Your task to perform on an android device: open app "Spotify" Image 0: 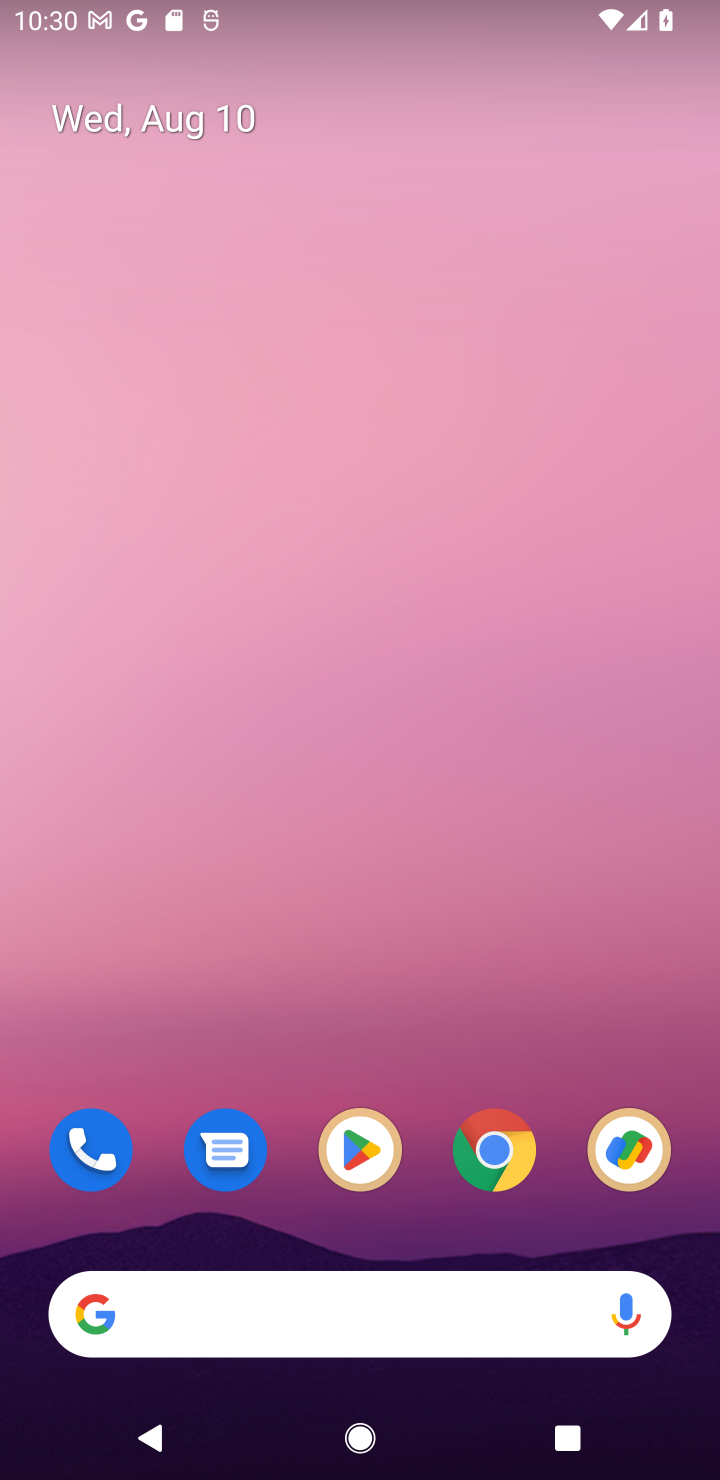
Step 0: click (365, 1137)
Your task to perform on an android device: open app "Spotify" Image 1: 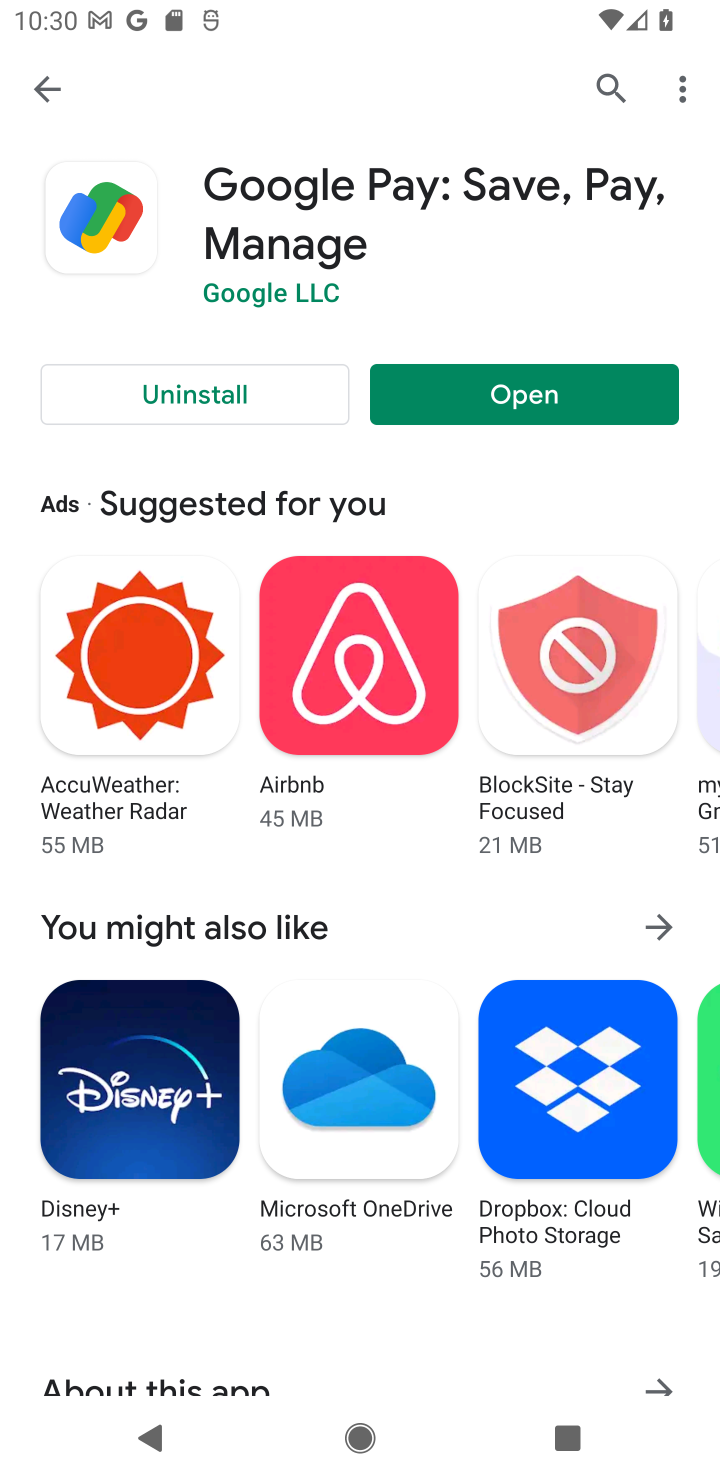
Step 1: click (623, 85)
Your task to perform on an android device: open app "Spotify" Image 2: 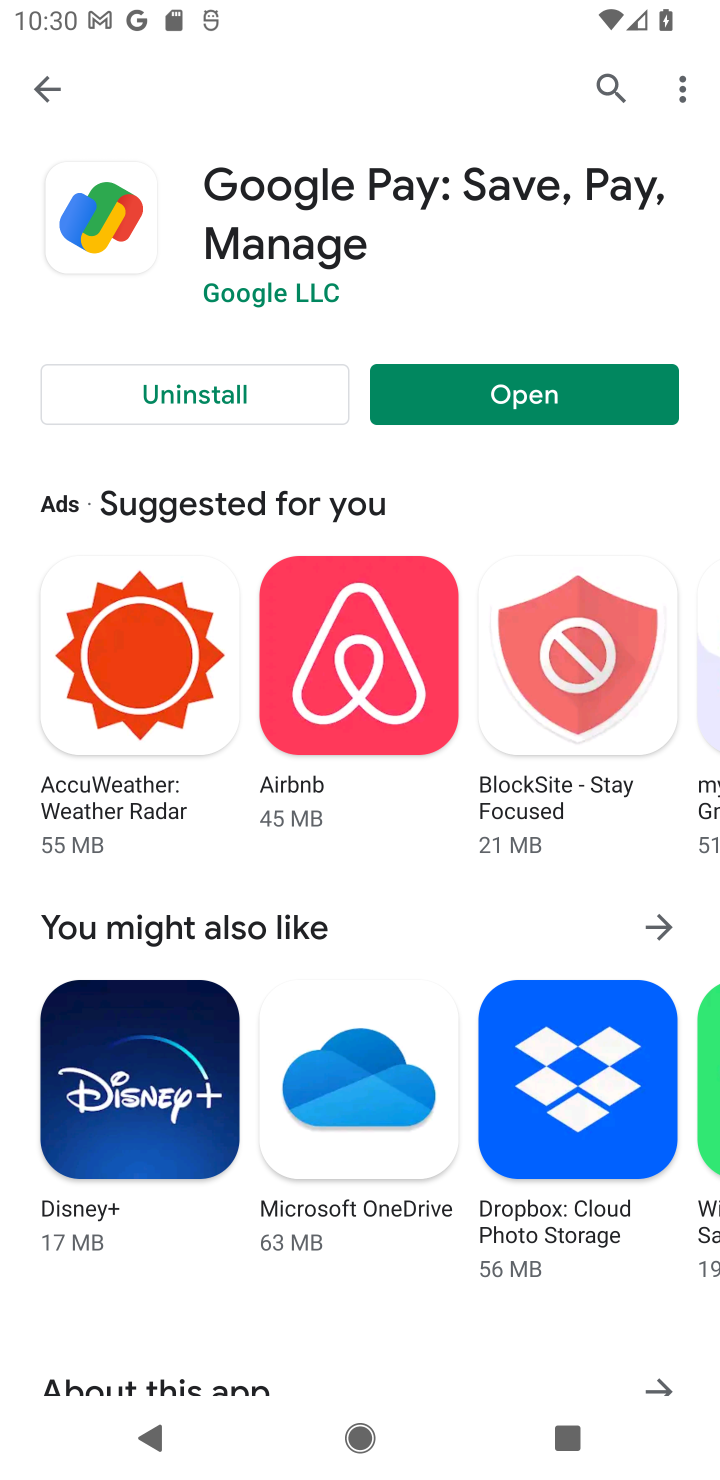
Step 2: click (617, 85)
Your task to perform on an android device: open app "Spotify" Image 3: 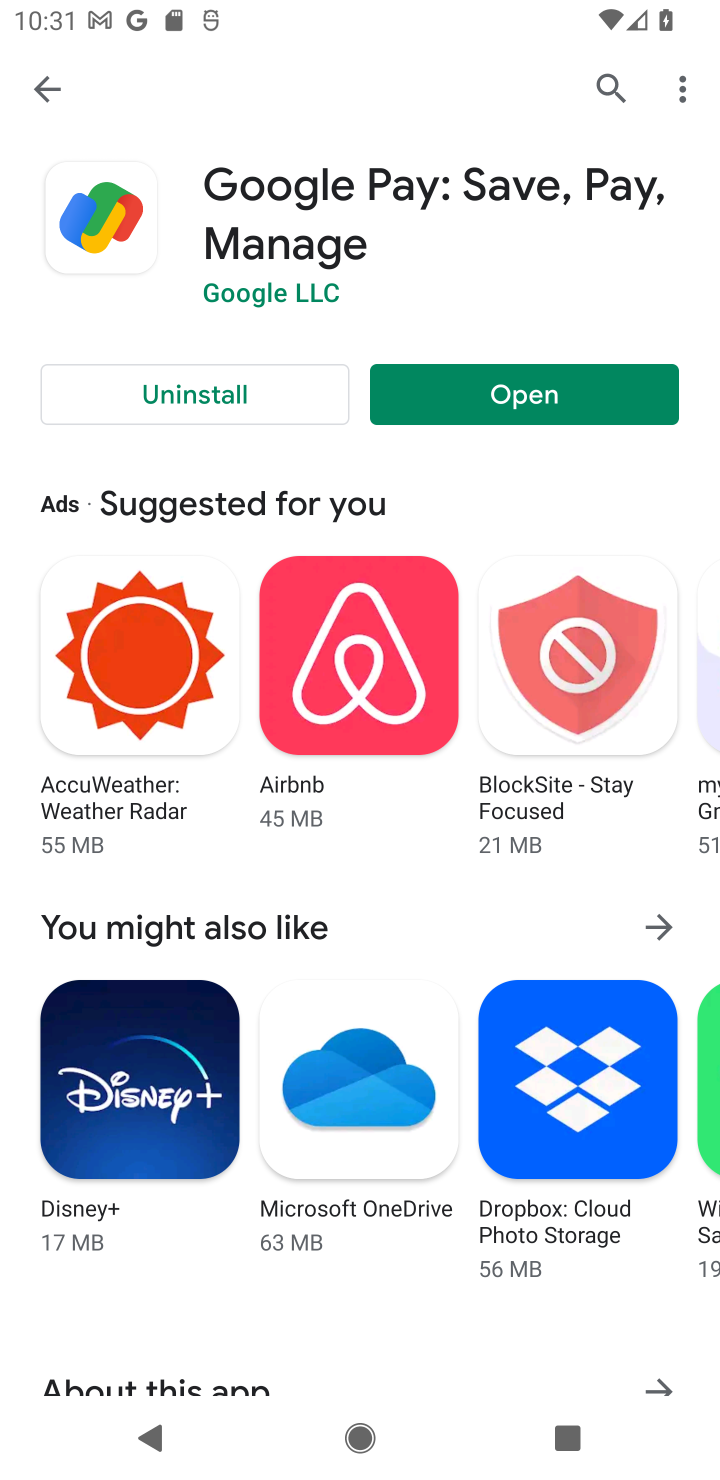
Step 3: click (617, 85)
Your task to perform on an android device: open app "Spotify" Image 4: 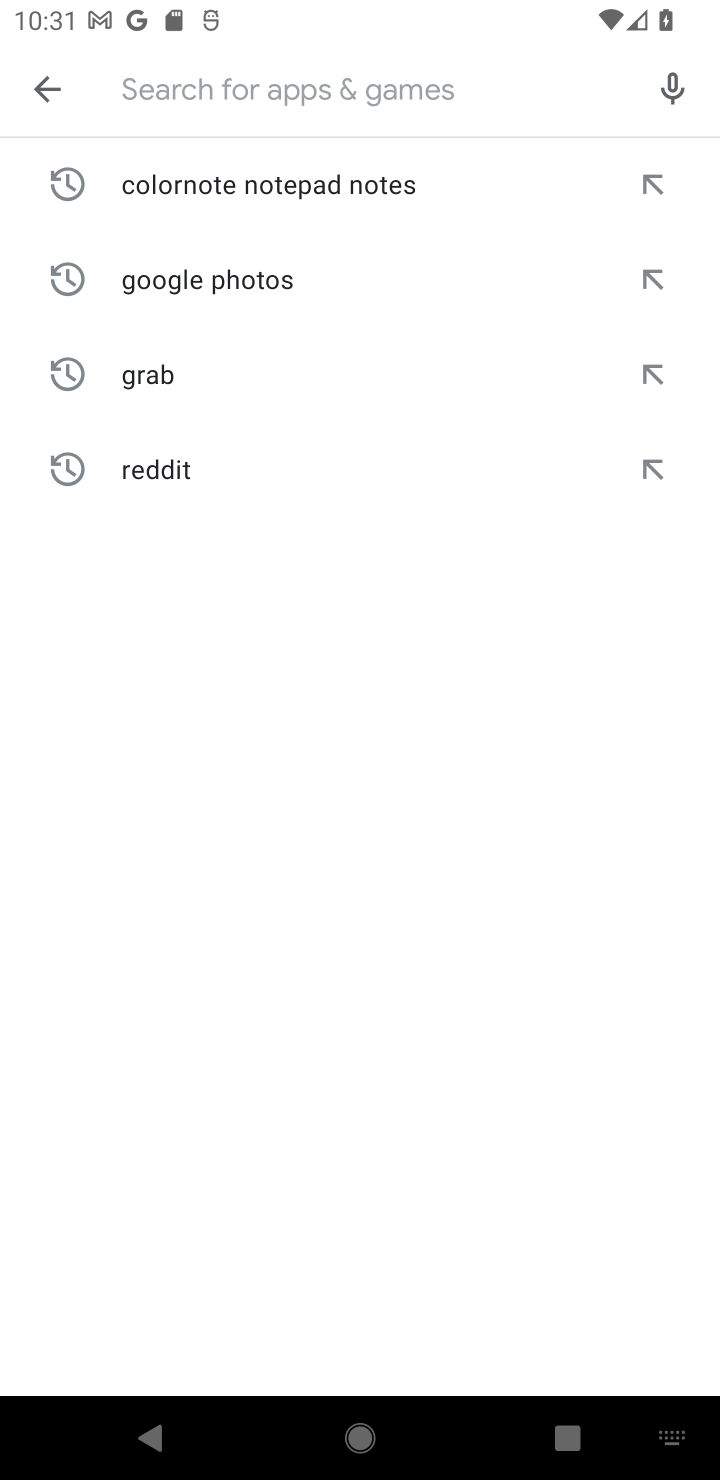
Step 4: type "Spotify"
Your task to perform on an android device: open app "Spotify" Image 5: 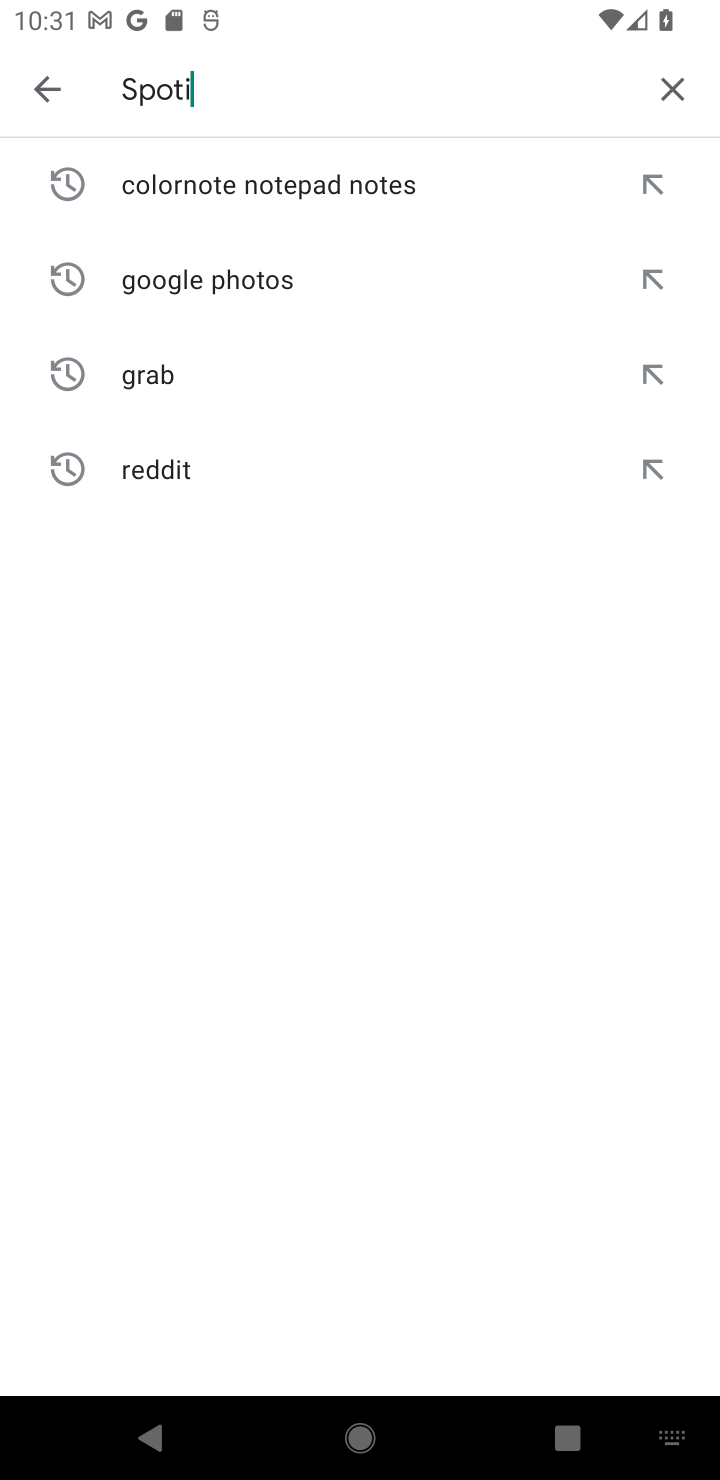
Step 5: type ""
Your task to perform on an android device: open app "Spotify" Image 6: 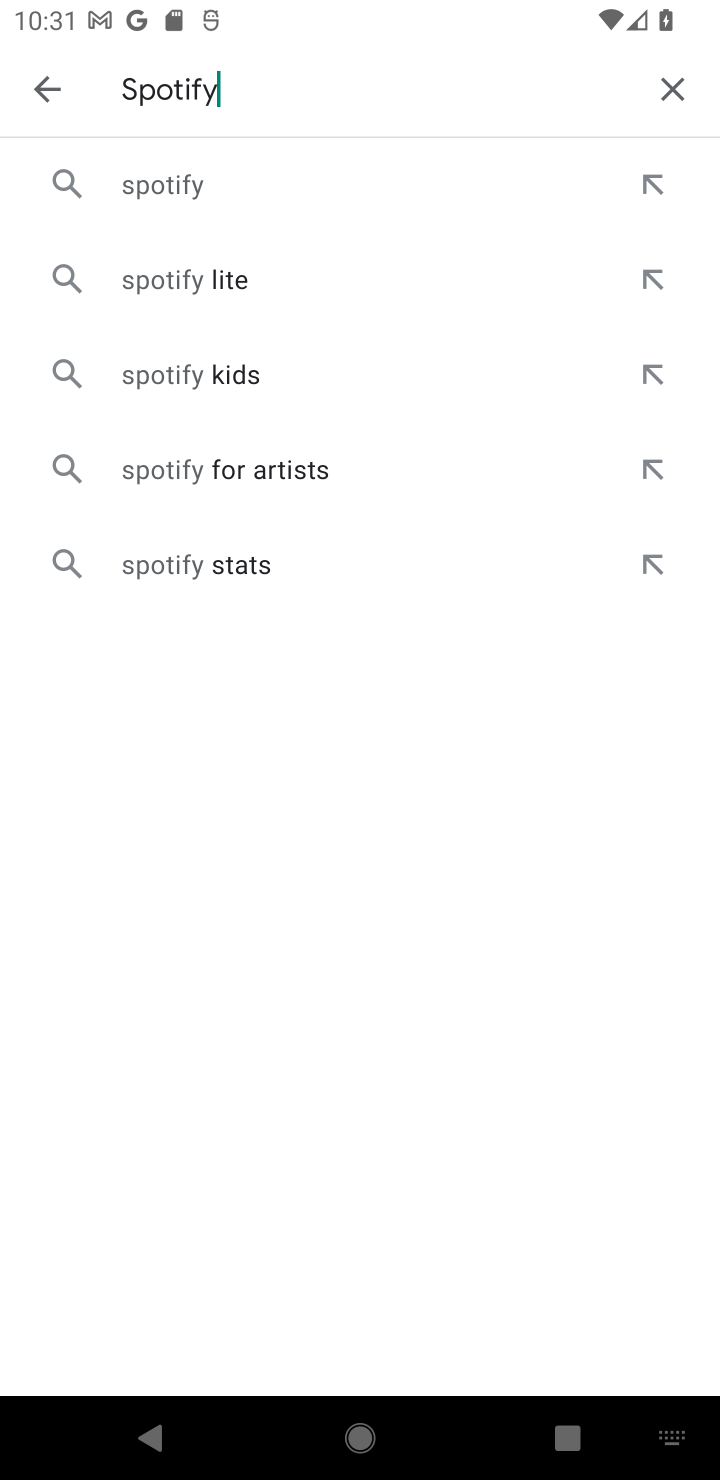
Step 6: click (244, 178)
Your task to perform on an android device: open app "Spotify" Image 7: 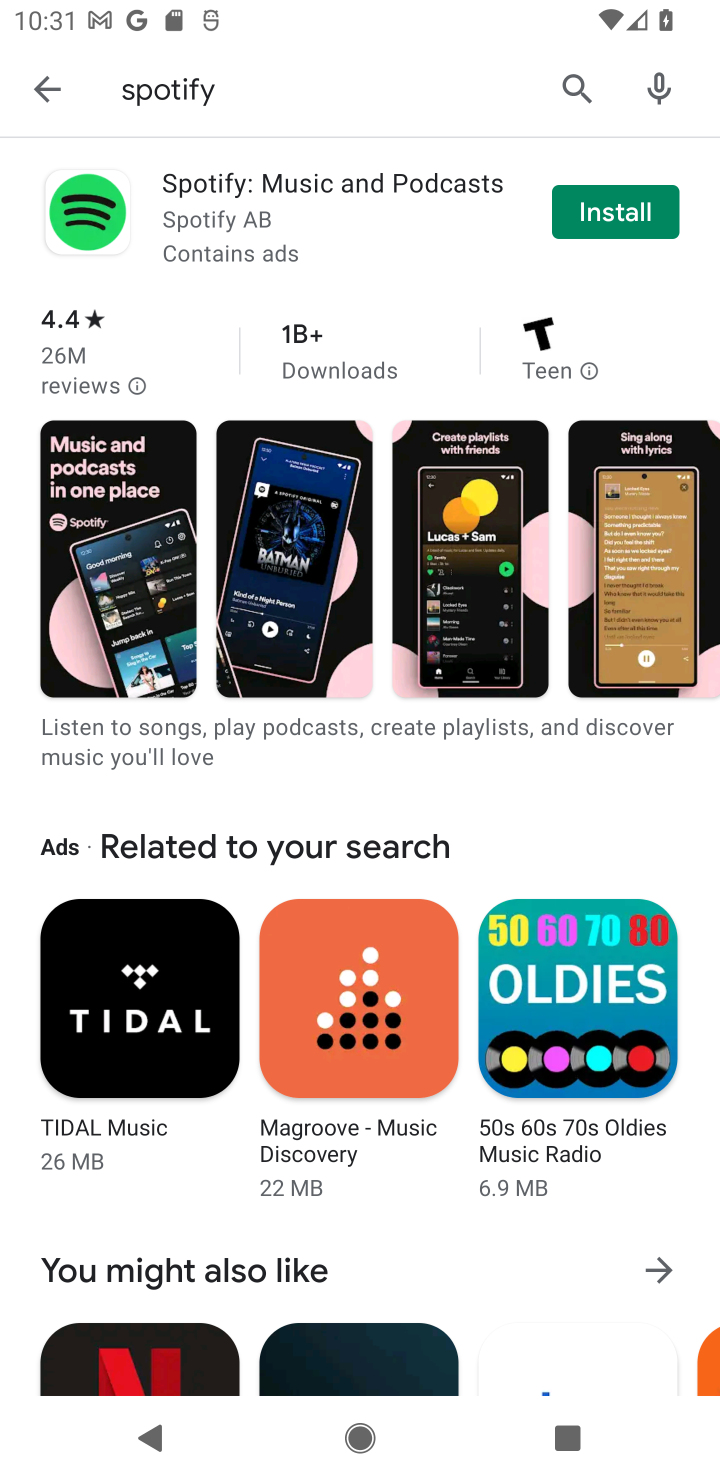
Step 7: task complete